Your task to perform on an android device: check data usage Image 0: 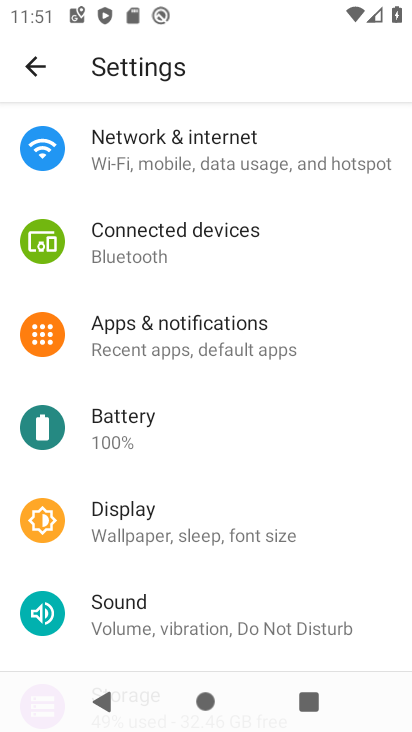
Step 0: click (221, 147)
Your task to perform on an android device: check data usage Image 1: 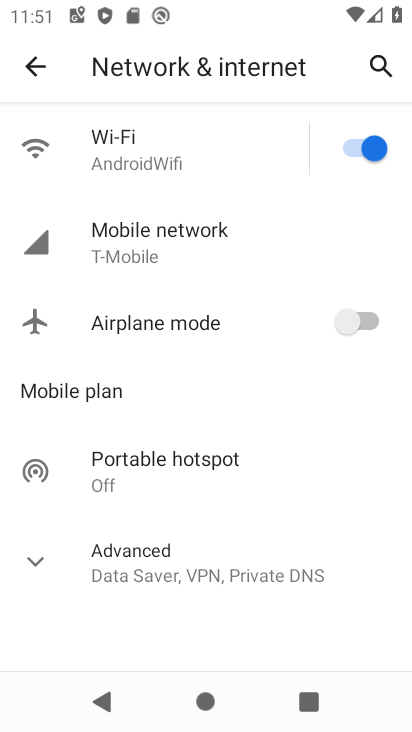
Step 1: click (211, 237)
Your task to perform on an android device: check data usage Image 2: 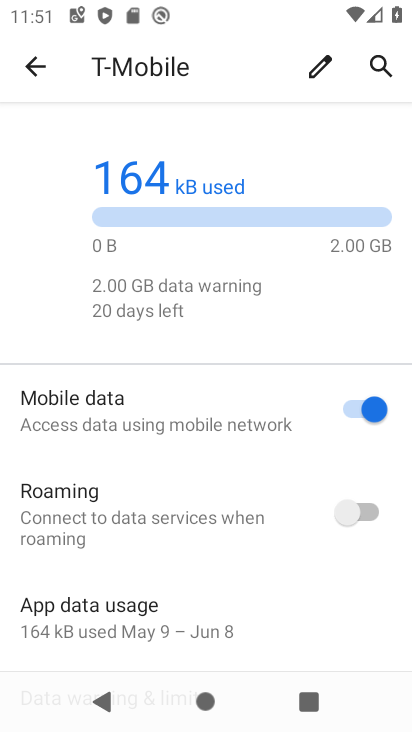
Step 2: task complete